Your task to perform on an android device: turn off improve location accuracy Image 0: 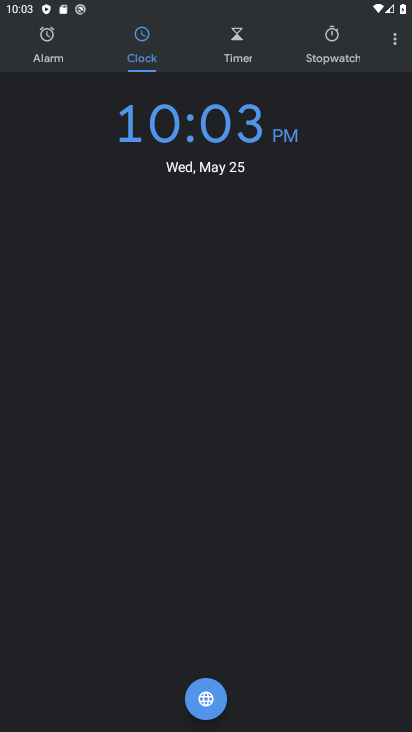
Step 0: press home button
Your task to perform on an android device: turn off improve location accuracy Image 1: 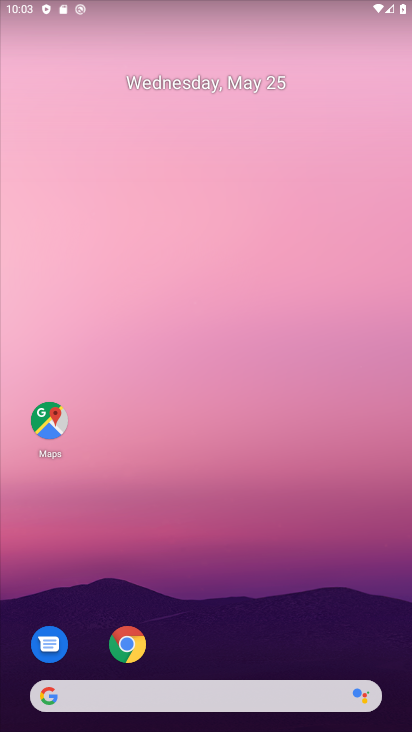
Step 1: drag from (250, 633) to (257, 187)
Your task to perform on an android device: turn off improve location accuracy Image 2: 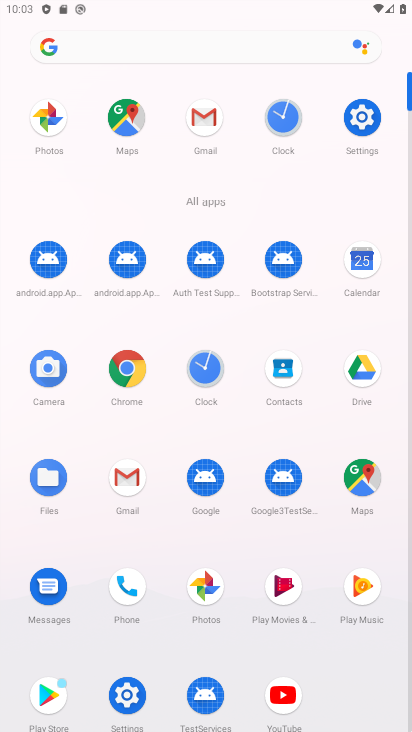
Step 2: click (359, 115)
Your task to perform on an android device: turn off improve location accuracy Image 3: 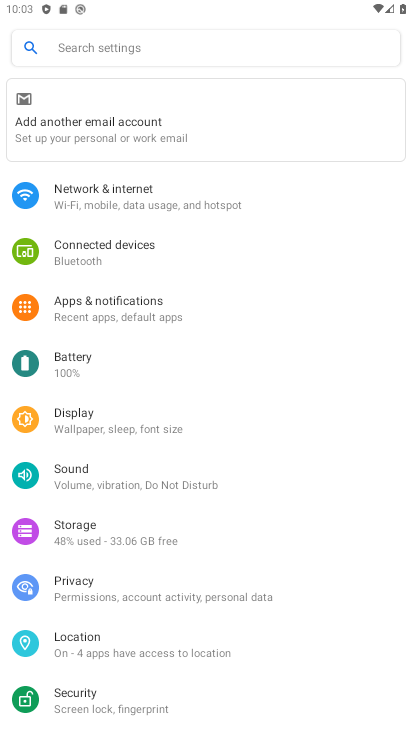
Step 3: click (109, 640)
Your task to perform on an android device: turn off improve location accuracy Image 4: 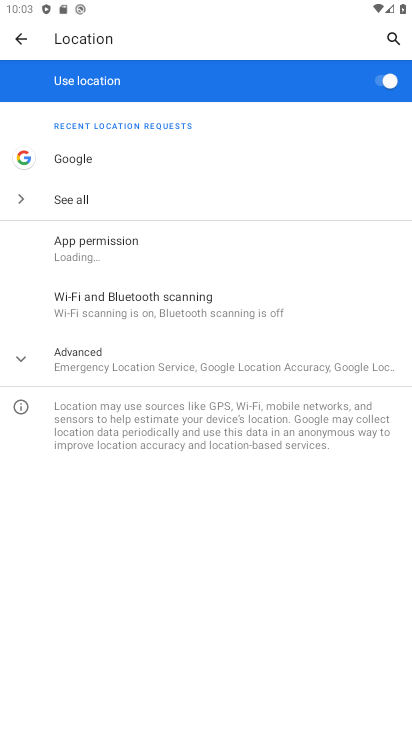
Step 4: click (120, 372)
Your task to perform on an android device: turn off improve location accuracy Image 5: 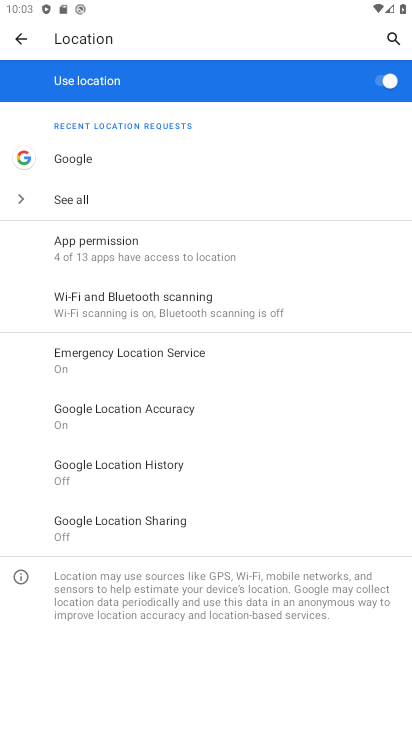
Step 5: click (129, 422)
Your task to perform on an android device: turn off improve location accuracy Image 6: 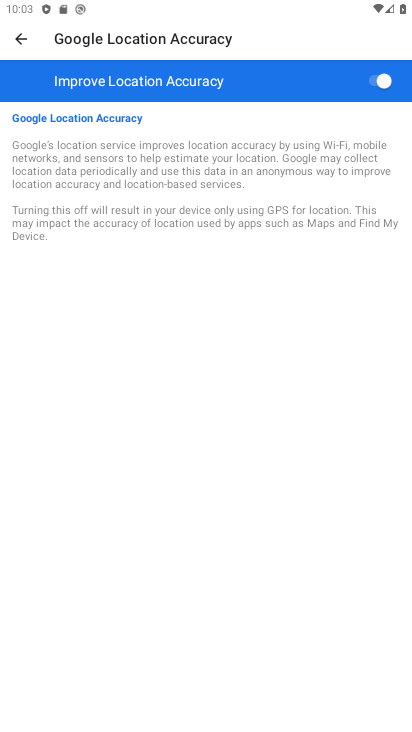
Step 6: click (391, 76)
Your task to perform on an android device: turn off improve location accuracy Image 7: 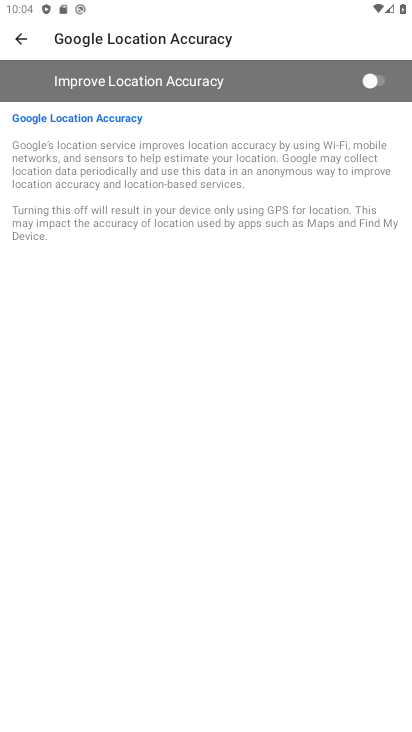
Step 7: task complete